Your task to perform on an android device: turn off notifications settings in the gmail app Image 0: 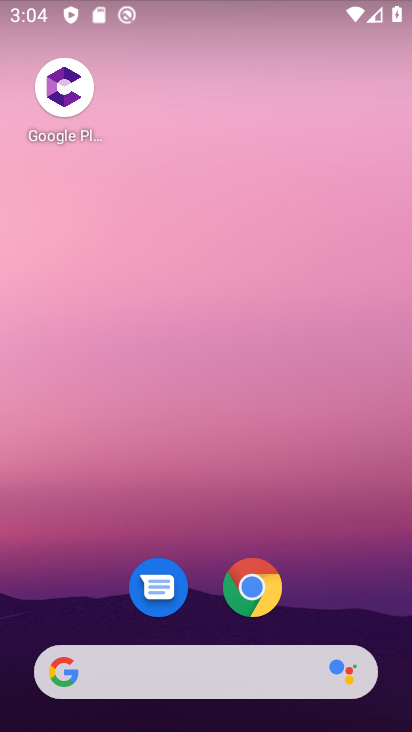
Step 0: drag from (97, 491) to (224, 62)
Your task to perform on an android device: turn off notifications settings in the gmail app Image 1: 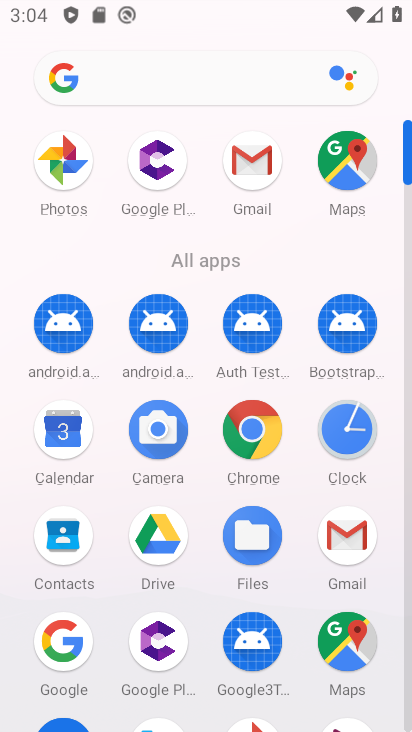
Step 1: click (236, 157)
Your task to perform on an android device: turn off notifications settings in the gmail app Image 2: 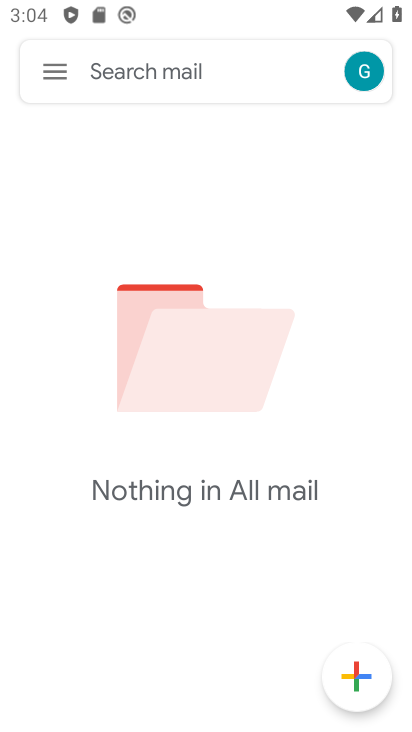
Step 2: click (58, 80)
Your task to perform on an android device: turn off notifications settings in the gmail app Image 3: 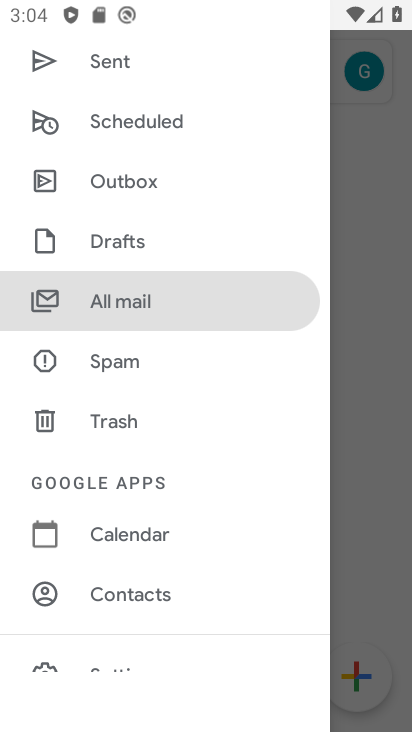
Step 3: drag from (124, 564) to (182, 268)
Your task to perform on an android device: turn off notifications settings in the gmail app Image 4: 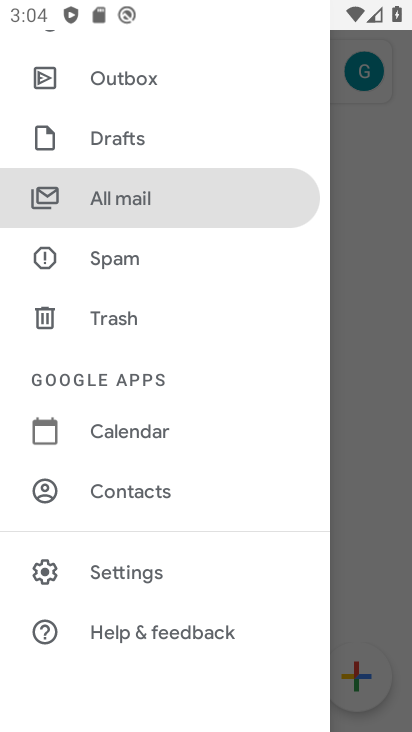
Step 4: click (142, 570)
Your task to perform on an android device: turn off notifications settings in the gmail app Image 5: 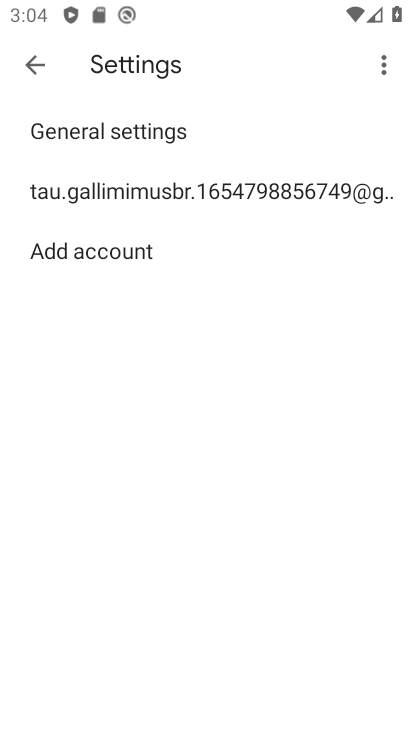
Step 5: click (101, 194)
Your task to perform on an android device: turn off notifications settings in the gmail app Image 6: 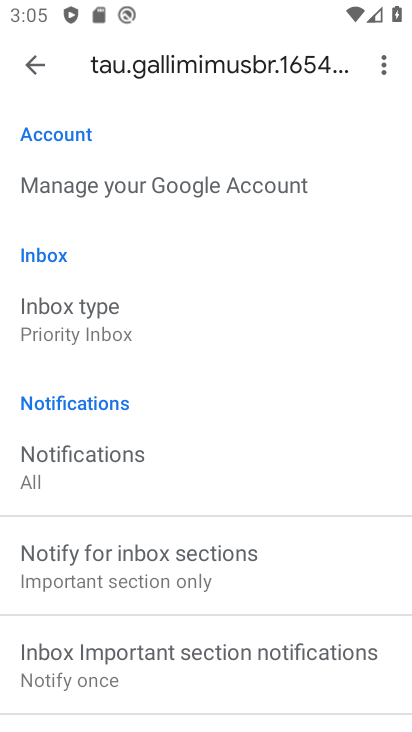
Step 6: click (99, 475)
Your task to perform on an android device: turn off notifications settings in the gmail app Image 7: 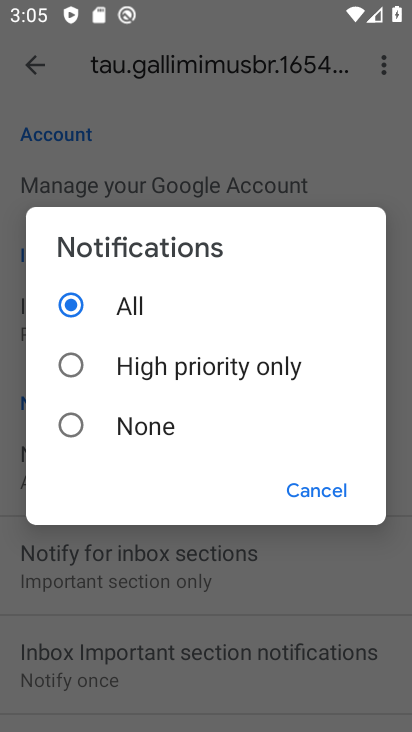
Step 7: task complete